Your task to perform on an android device: Open Google Chrome and open the bookmarks view Image 0: 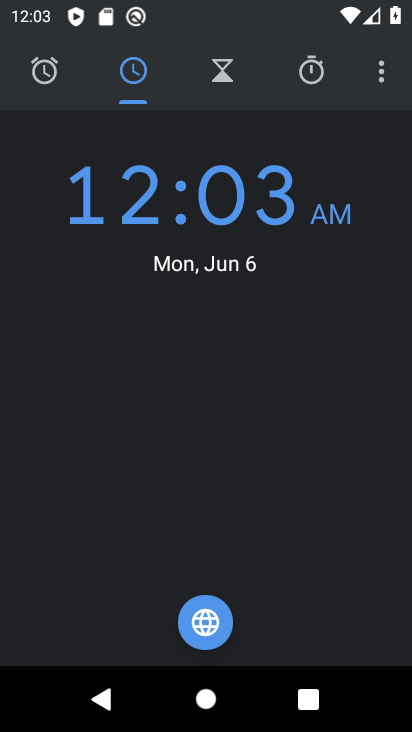
Step 0: press home button
Your task to perform on an android device: Open Google Chrome and open the bookmarks view Image 1: 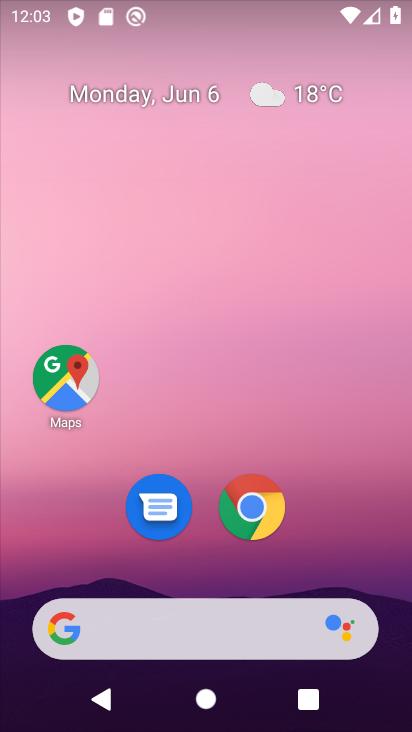
Step 1: click (251, 523)
Your task to perform on an android device: Open Google Chrome and open the bookmarks view Image 2: 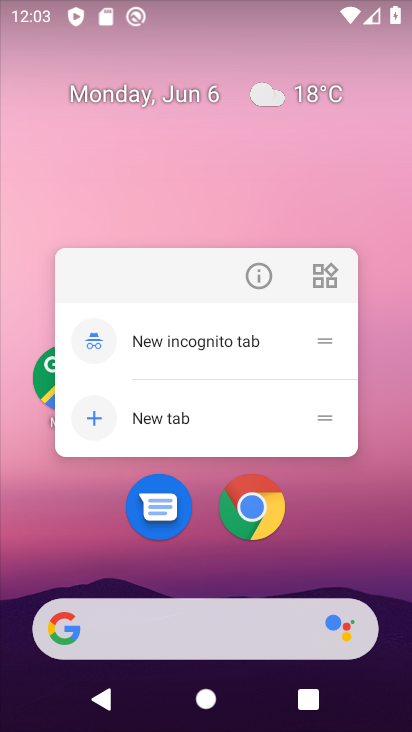
Step 2: click (256, 514)
Your task to perform on an android device: Open Google Chrome and open the bookmarks view Image 3: 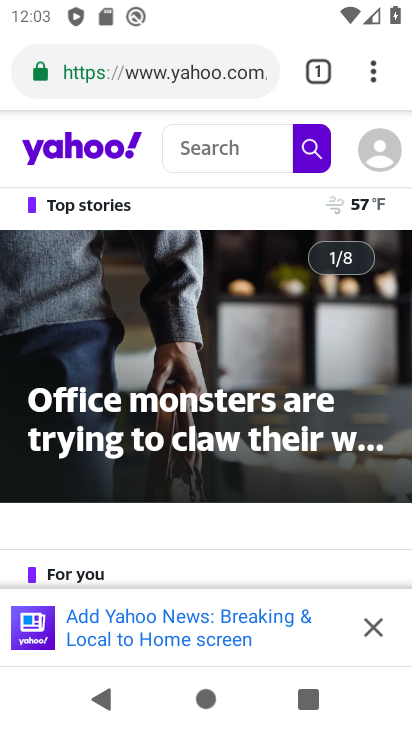
Step 3: click (367, 63)
Your task to perform on an android device: Open Google Chrome and open the bookmarks view Image 4: 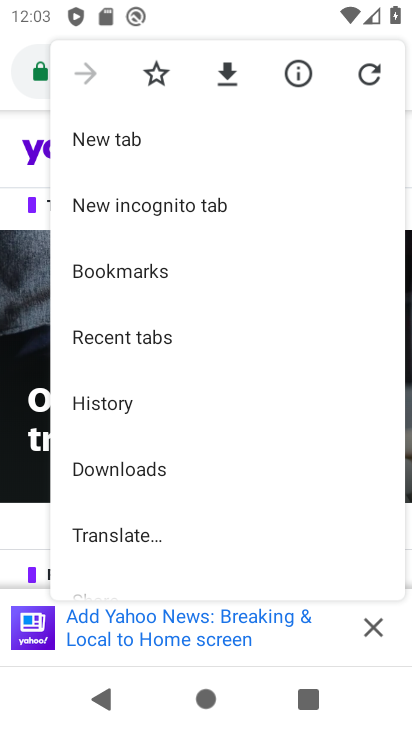
Step 4: click (152, 280)
Your task to perform on an android device: Open Google Chrome and open the bookmarks view Image 5: 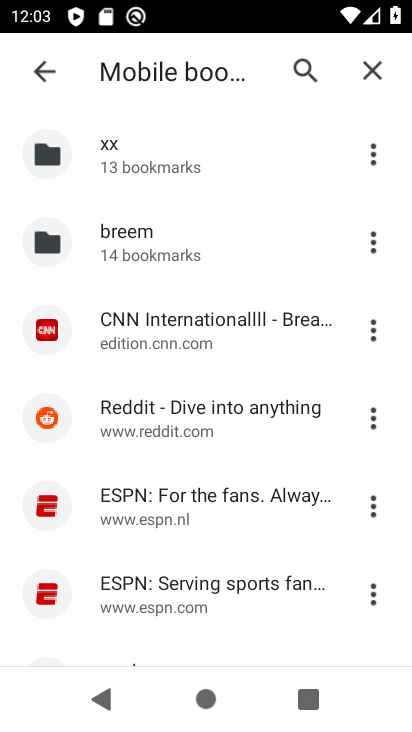
Step 5: click (374, 328)
Your task to perform on an android device: Open Google Chrome and open the bookmarks view Image 6: 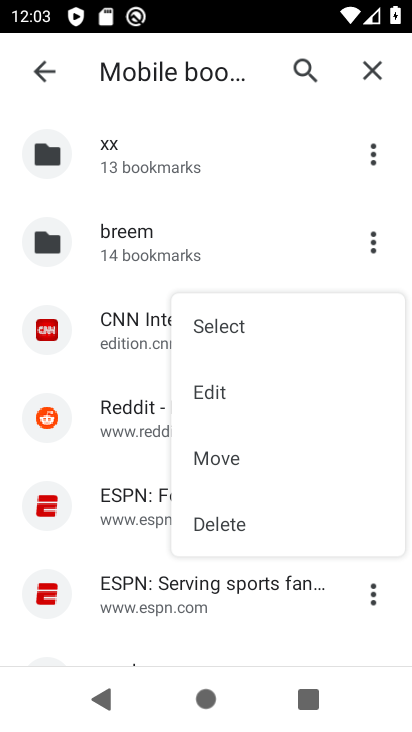
Step 6: click (218, 330)
Your task to perform on an android device: Open Google Chrome and open the bookmarks view Image 7: 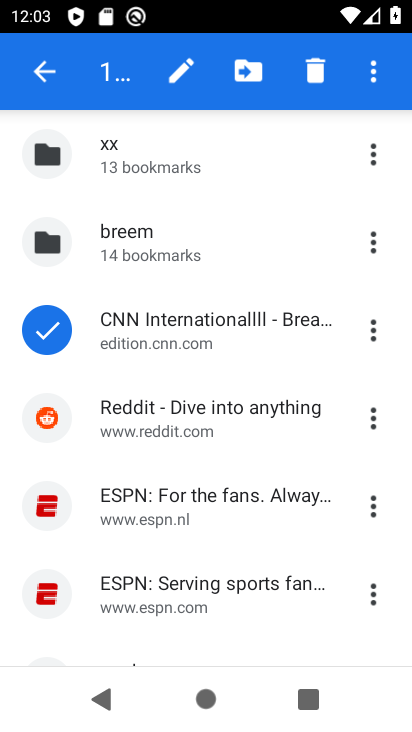
Step 7: click (36, 407)
Your task to perform on an android device: Open Google Chrome and open the bookmarks view Image 8: 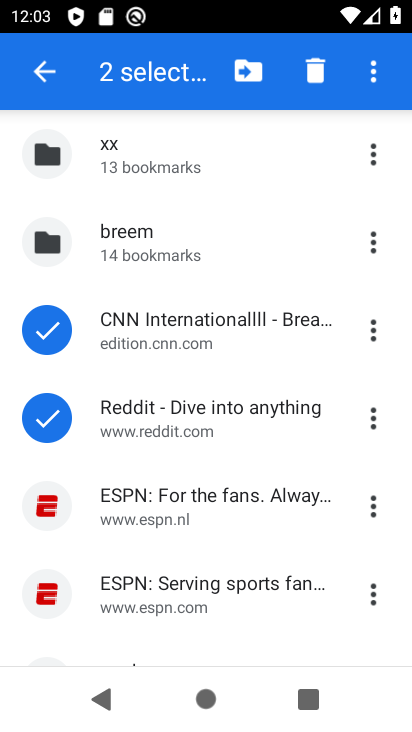
Step 8: click (32, 484)
Your task to perform on an android device: Open Google Chrome and open the bookmarks view Image 9: 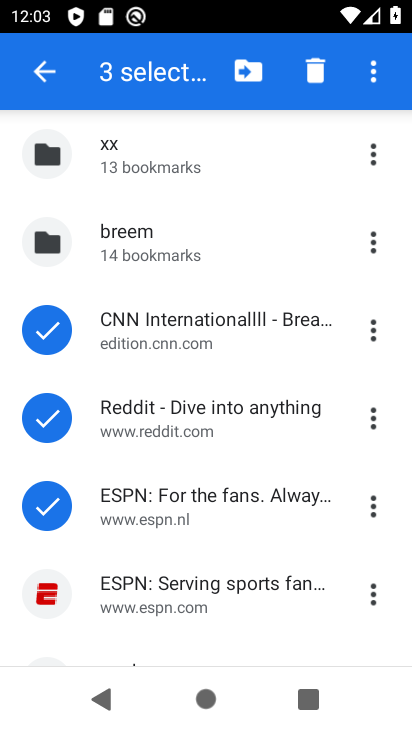
Step 9: click (50, 589)
Your task to perform on an android device: Open Google Chrome and open the bookmarks view Image 10: 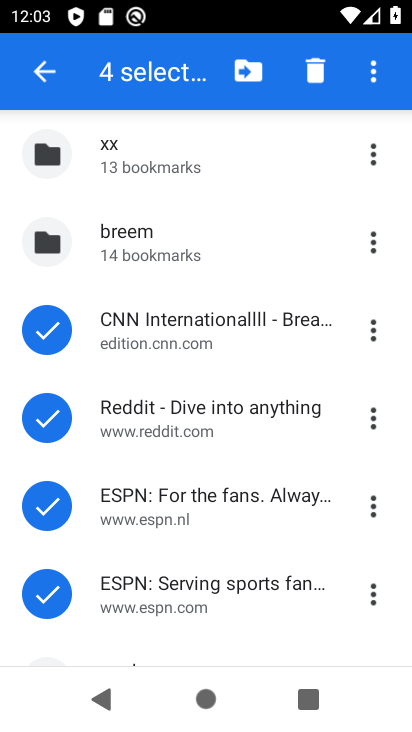
Step 10: drag from (108, 613) to (148, 356)
Your task to perform on an android device: Open Google Chrome and open the bookmarks view Image 11: 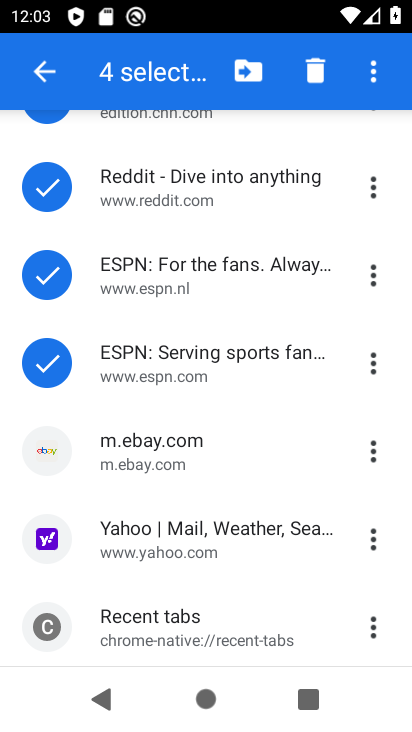
Step 11: click (76, 457)
Your task to perform on an android device: Open Google Chrome and open the bookmarks view Image 12: 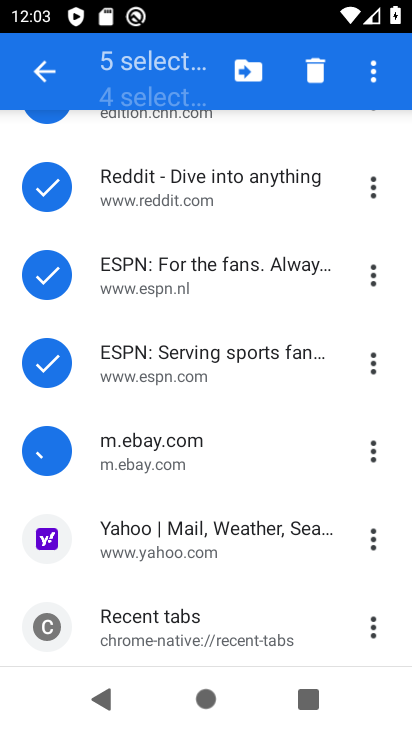
Step 12: click (76, 529)
Your task to perform on an android device: Open Google Chrome and open the bookmarks view Image 13: 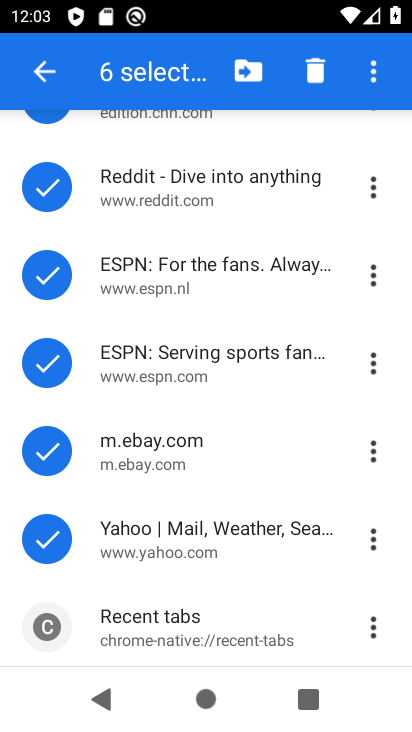
Step 13: click (79, 631)
Your task to perform on an android device: Open Google Chrome and open the bookmarks view Image 14: 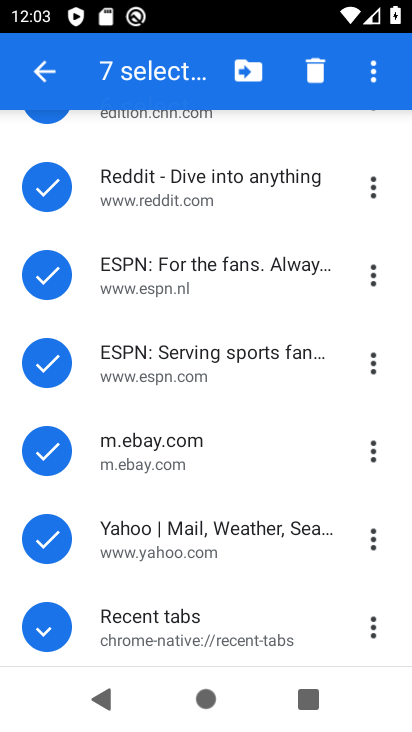
Step 14: drag from (82, 636) to (232, 172)
Your task to perform on an android device: Open Google Chrome and open the bookmarks view Image 15: 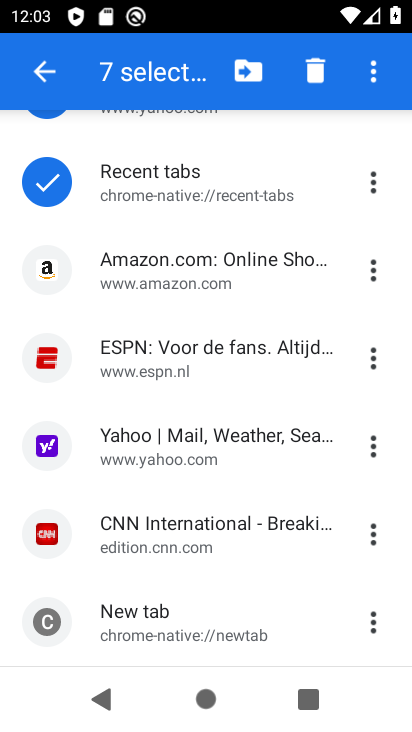
Step 15: click (109, 260)
Your task to perform on an android device: Open Google Chrome and open the bookmarks view Image 16: 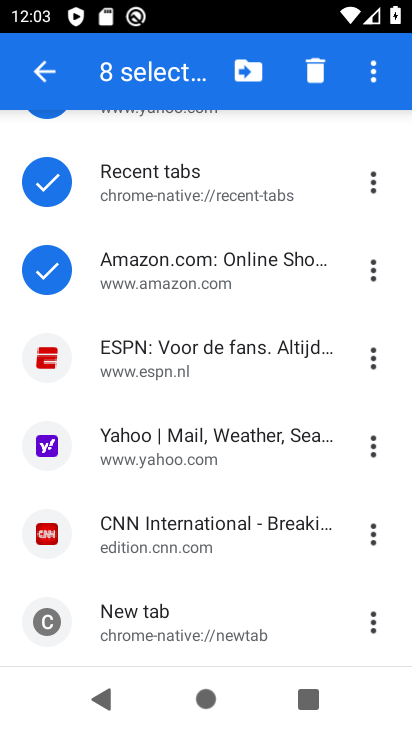
Step 16: click (93, 362)
Your task to perform on an android device: Open Google Chrome and open the bookmarks view Image 17: 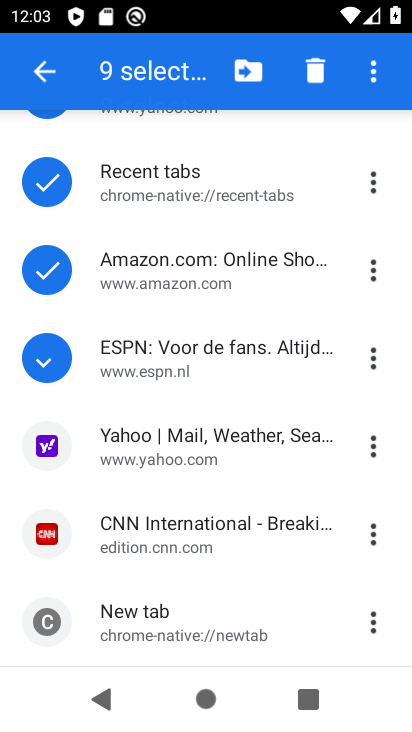
Step 17: click (88, 428)
Your task to perform on an android device: Open Google Chrome and open the bookmarks view Image 18: 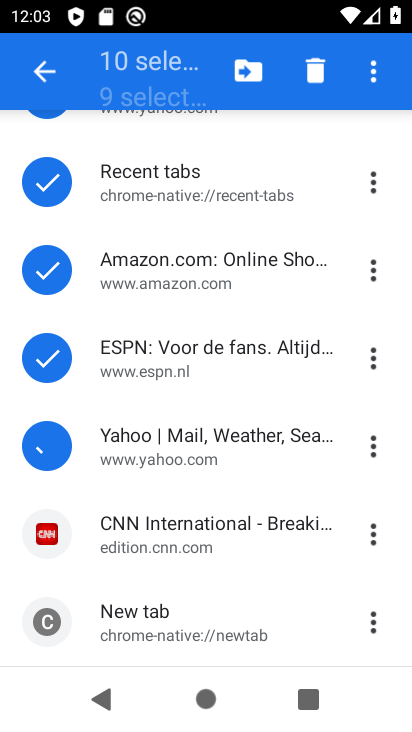
Step 18: click (67, 520)
Your task to perform on an android device: Open Google Chrome and open the bookmarks view Image 19: 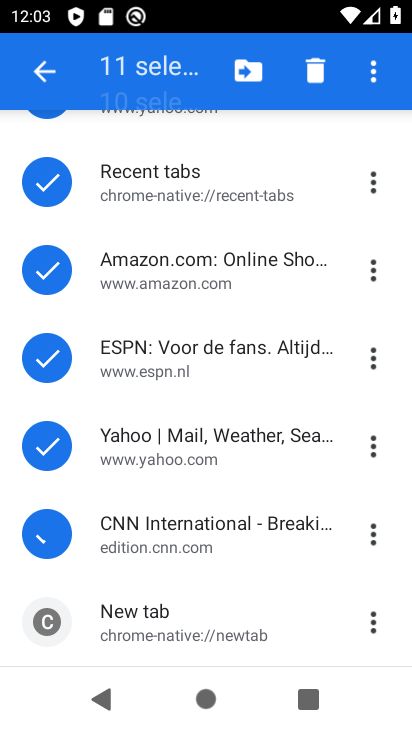
Step 19: click (45, 591)
Your task to perform on an android device: Open Google Chrome and open the bookmarks view Image 20: 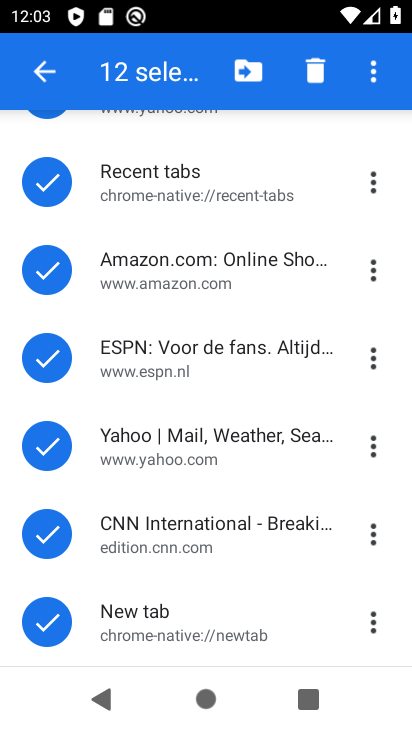
Step 20: drag from (101, 610) to (114, 294)
Your task to perform on an android device: Open Google Chrome and open the bookmarks view Image 21: 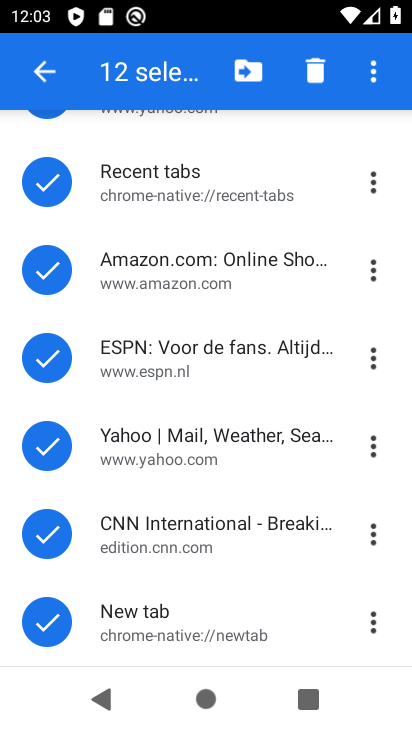
Step 21: click (257, 71)
Your task to perform on an android device: Open Google Chrome and open the bookmarks view Image 22: 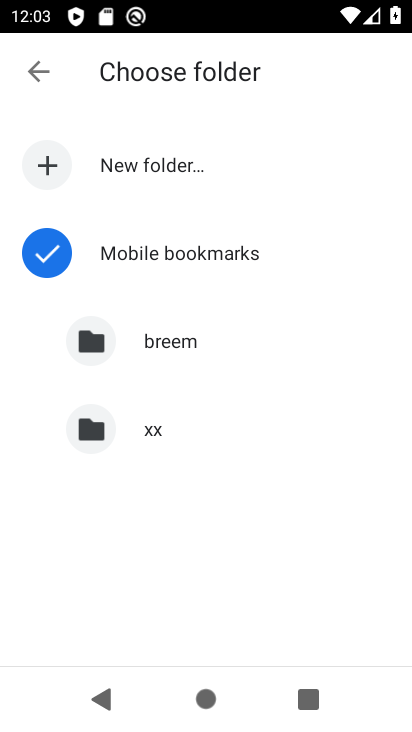
Step 22: click (163, 356)
Your task to perform on an android device: Open Google Chrome and open the bookmarks view Image 23: 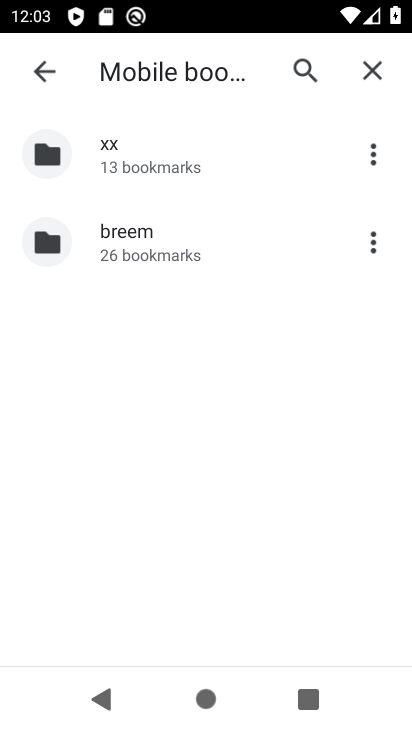
Step 23: click (155, 248)
Your task to perform on an android device: Open Google Chrome and open the bookmarks view Image 24: 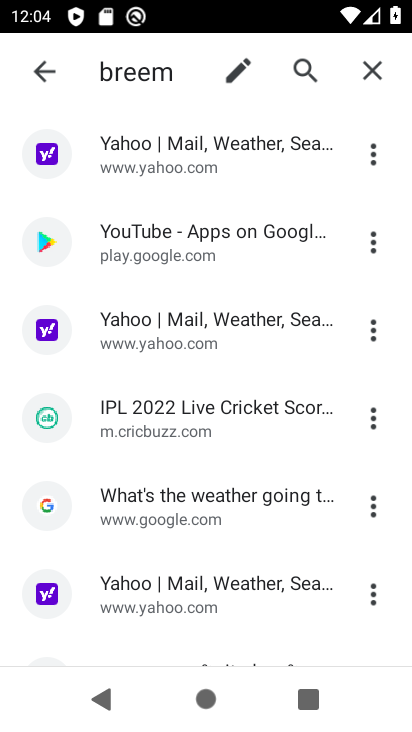
Step 24: task complete